Your task to perform on an android device: see creations saved in the google photos Image 0: 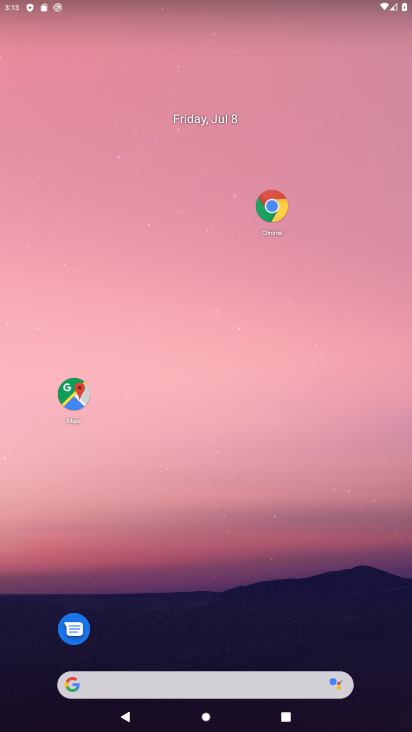
Step 0: click (312, 182)
Your task to perform on an android device: see creations saved in the google photos Image 1: 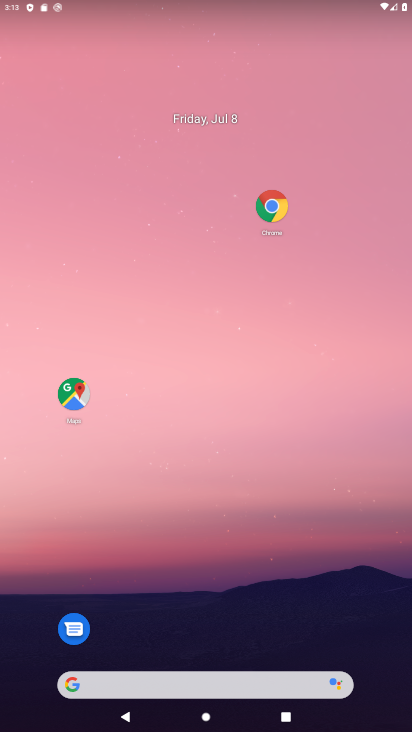
Step 1: drag from (224, 653) to (330, 126)
Your task to perform on an android device: see creations saved in the google photos Image 2: 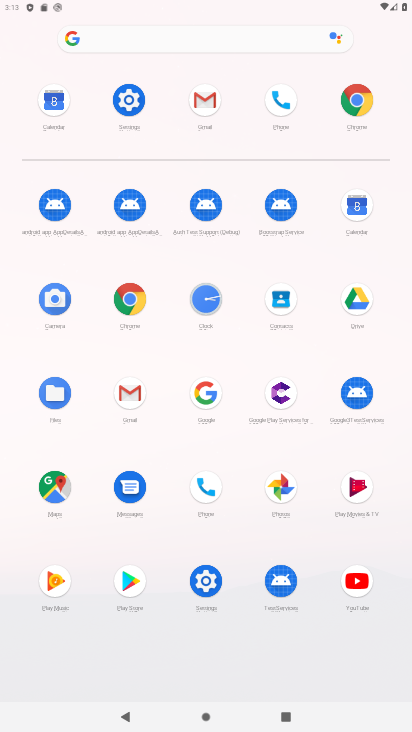
Step 2: drag from (246, 548) to (263, 10)
Your task to perform on an android device: see creations saved in the google photos Image 3: 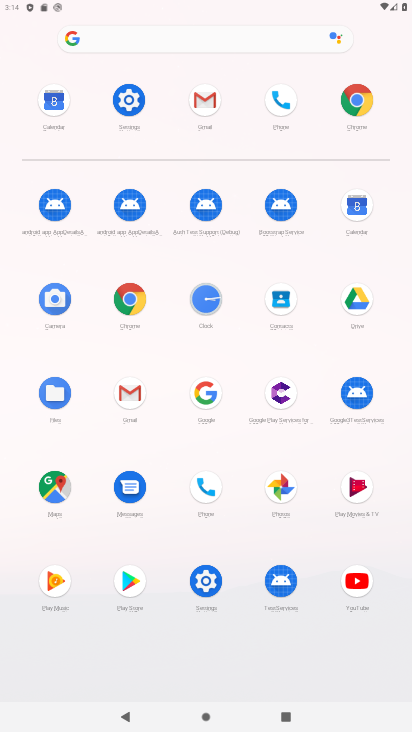
Step 3: click (273, 473)
Your task to perform on an android device: see creations saved in the google photos Image 4: 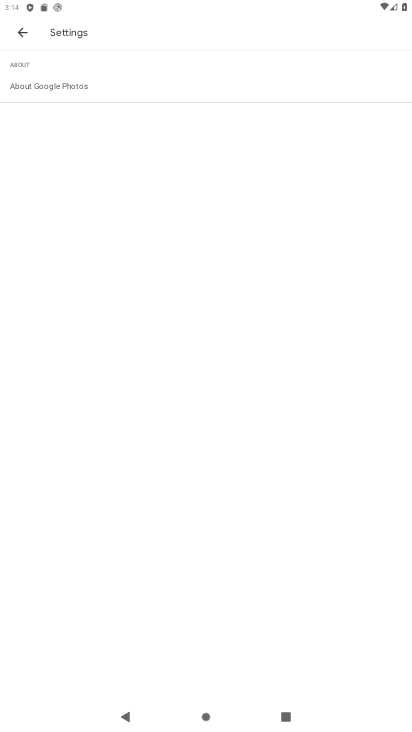
Step 4: click (23, 25)
Your task to perform on an android device: see creations saved in the google photos Image 5: 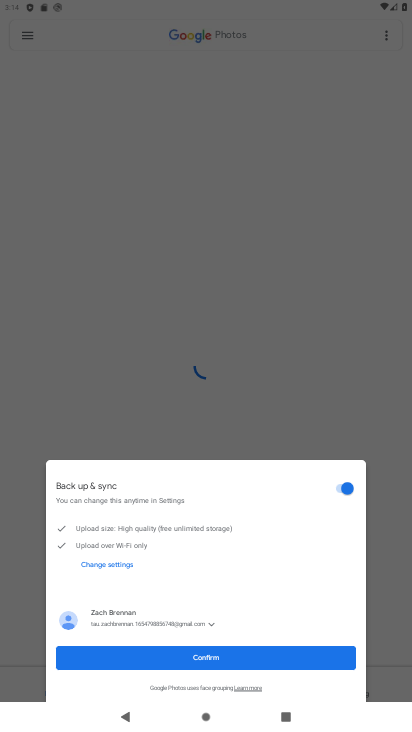
Step 5: click (177, 661)
Your task to perform on an android device: see creations saved in the google photos Image 6: 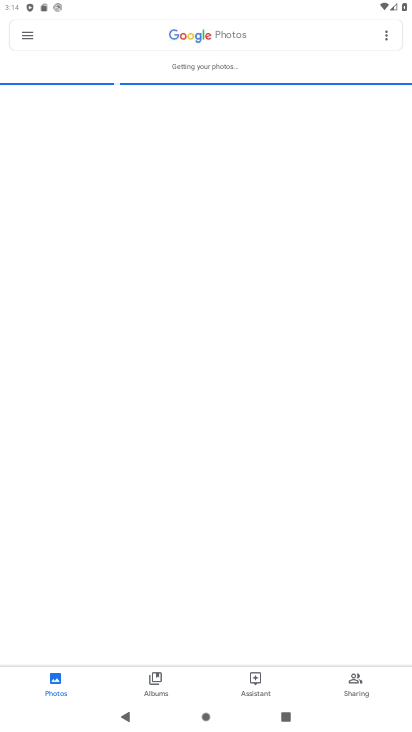
Step 6: click (144, 681)
Your task to perform on an android device: see creations saved in the google photos Image 7: 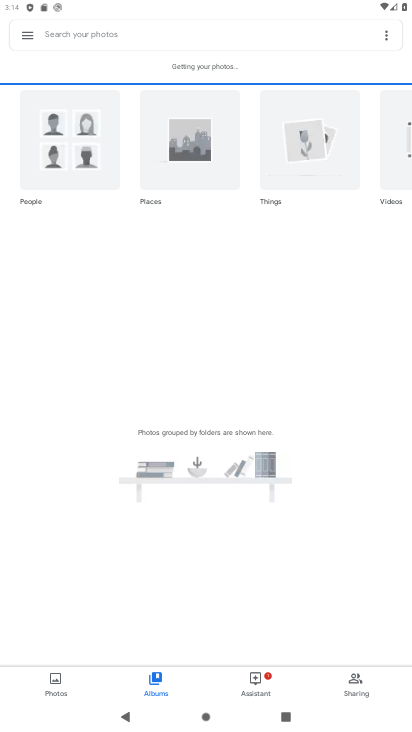
Step 7: click (113, 19)
Your task to perform on an android device: see creations saved in the google photos Image 8: 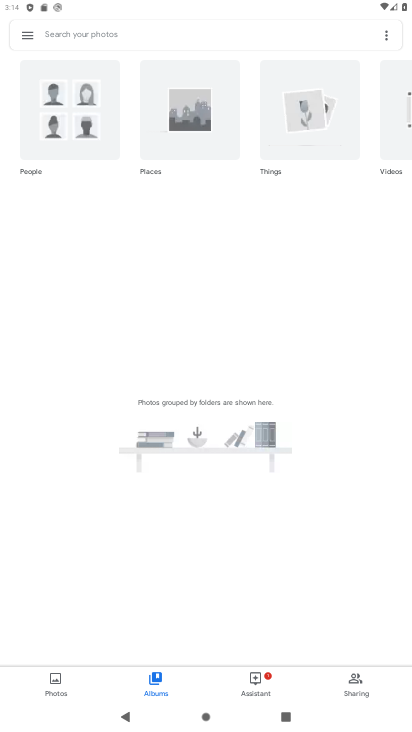
Step 8: click (82, 39)
Your task to perform on an android device: see creations saved in the google photos Image 9: 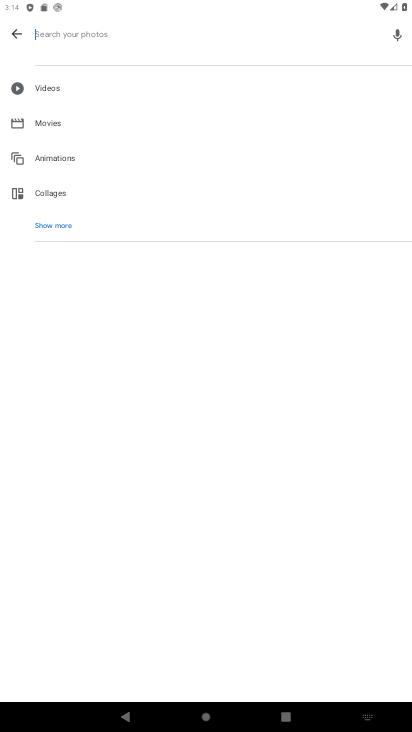
Step 9: click (41, 230)
Your task to perform on an android device: see creations saved in the google photos Image 10: 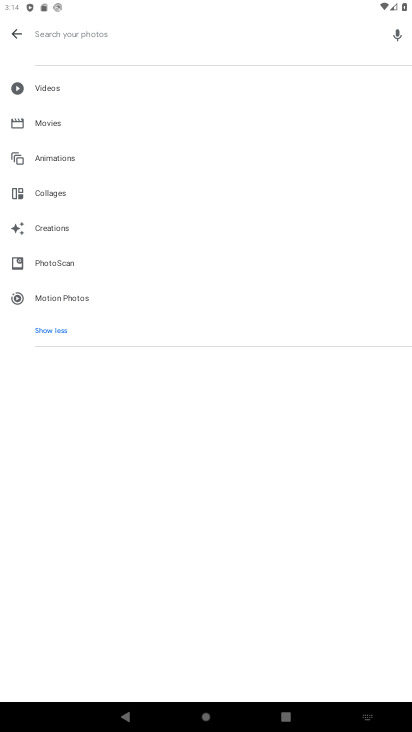
Step 10: click (60, 232)
Your task to perform on an android device: see creations saved in the google photos Image 11: 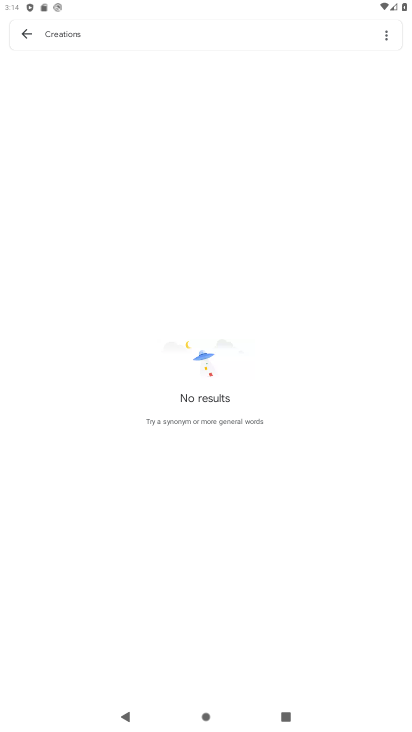
Step 11: drag from (115, 589) to (175, 202)
Your task to perform on an android device: see creations saved in the google photos Image 12: 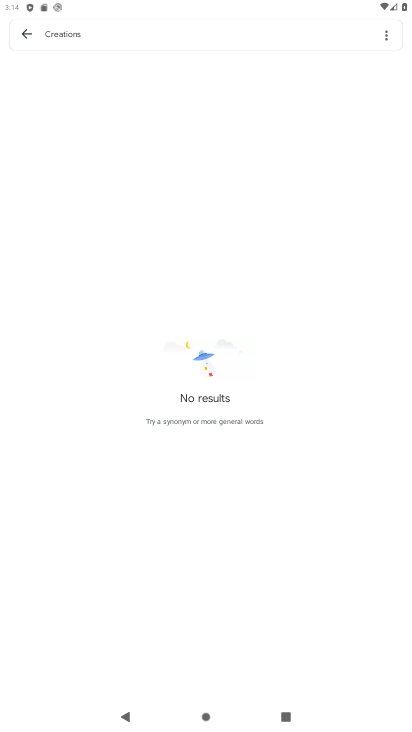
Step 12: drag from (218, 484) to (327, 252)
Your task to perform on an android device: see creations saved in the google photos Image 13: 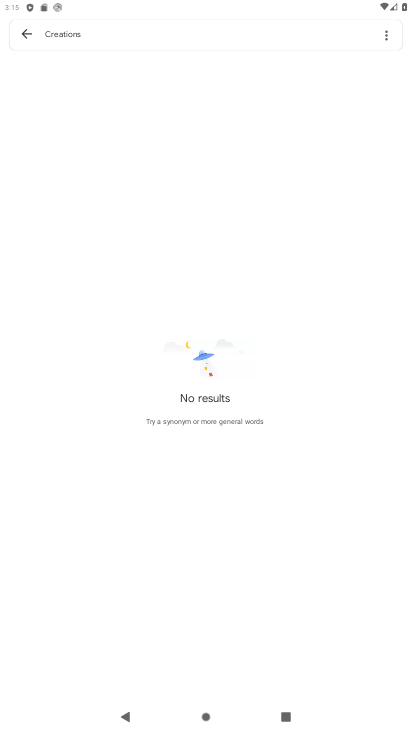
Step 13: drag from (290, 532) to (290, 378)
Your task to perform on an android device: see creations saved in the google photos Image 14: 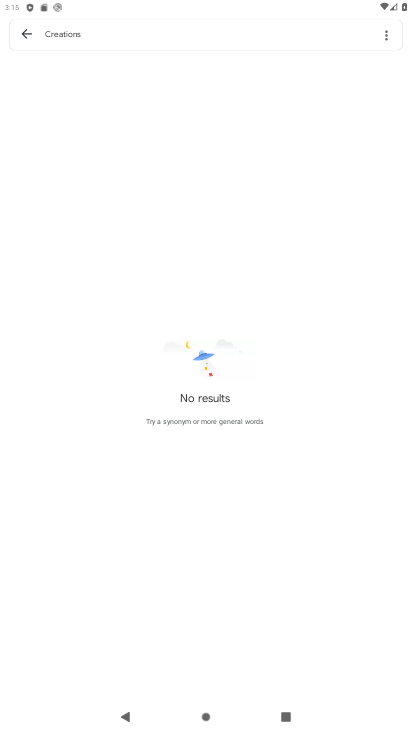
Step 14: drag from (97, 375) to (174, 79)
Your task to perform on an android device: see creations saved in the google photos Image 15: 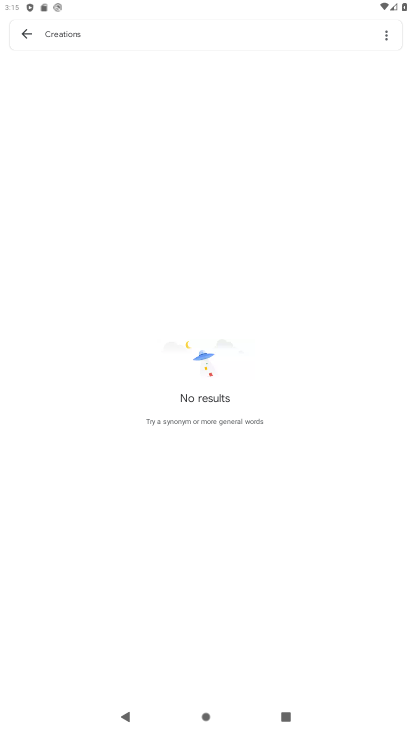
Step 15: drag from (270, 633) to (253, 418)
Your task to perform on an android device: see creations saved in the google photos Image 16: 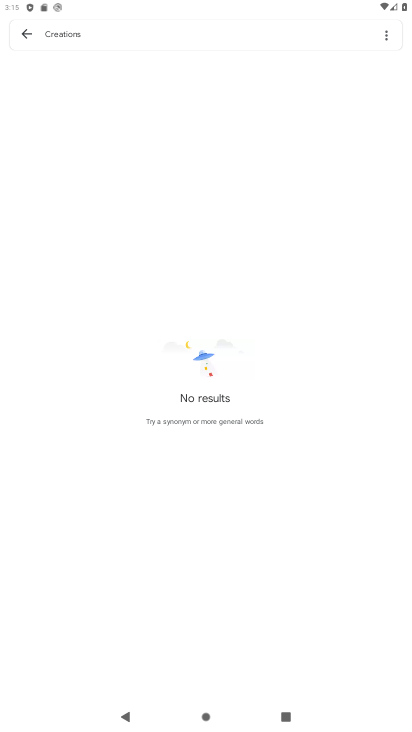
Step 16: drag from (189, 460) to (243, 292)
Your task to perform on an android device: see creations saved in the google photos Image 17: 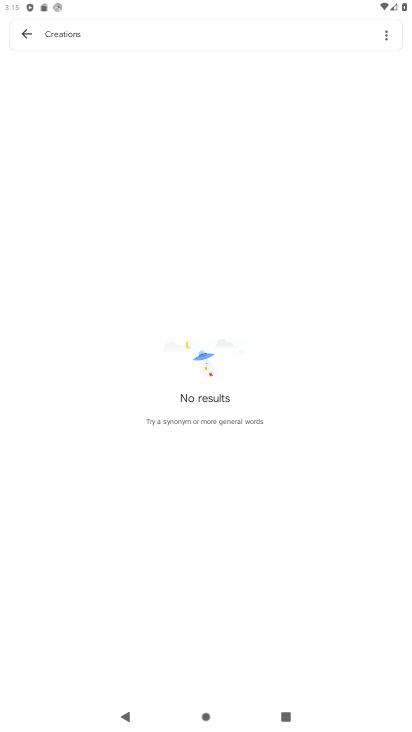
Step 17: drag from (112, 591) to (308, 240)
Your task to perform on an android device: see creations saved in the google photos Image 18: 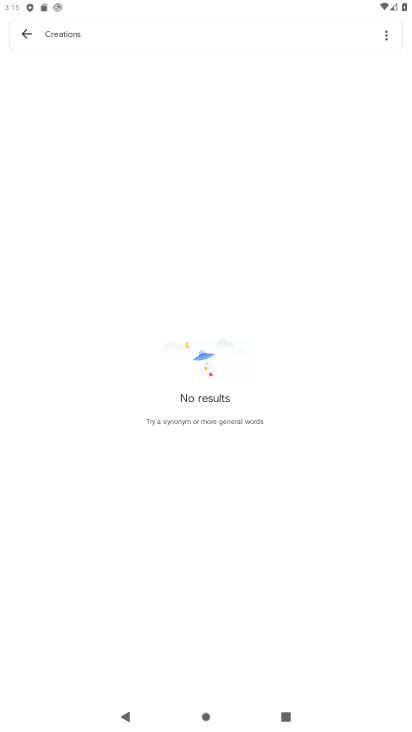
Step 18: drag from (348, 493) to (347, 377)
Your task to perform on an android device: see creations saved in the google photos Image 19: 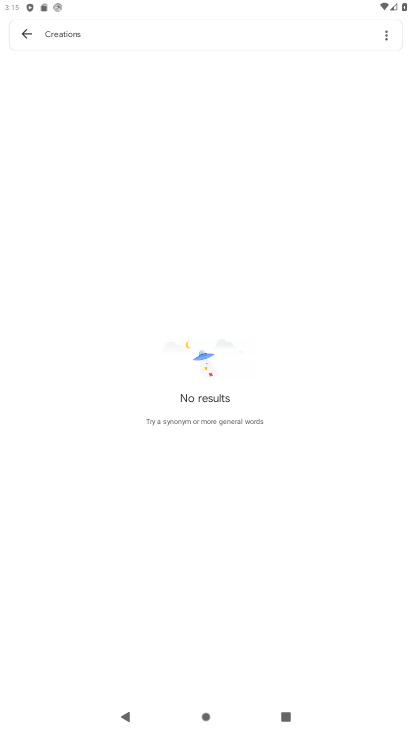
Step 19: click (204, 289)
Your task to perform on an android device: see creations saved in the google photos Image 20: 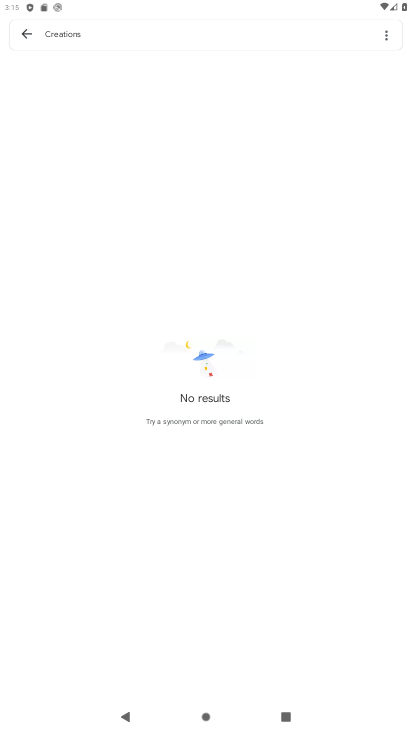
Step 20: click (223, 309)
Your task to perform on an android device: see creations saved in the google photos Image 21: 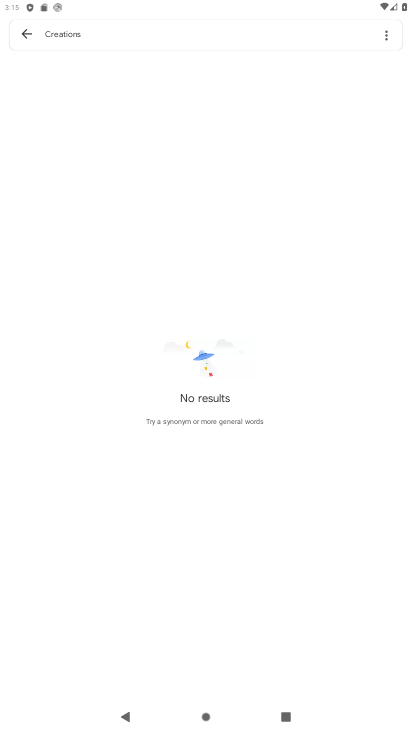
Step 21: click (223, 309)
Your task to perform on an android device: see creations saved in the google photos Image 22: 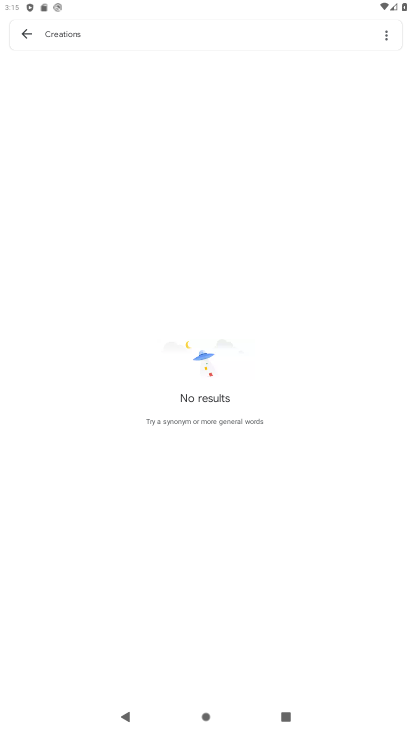
Step 22: drag from (195, 532) to (205, 459)
Your task to perform on an android device: see creations saved in the google photos Image 23: 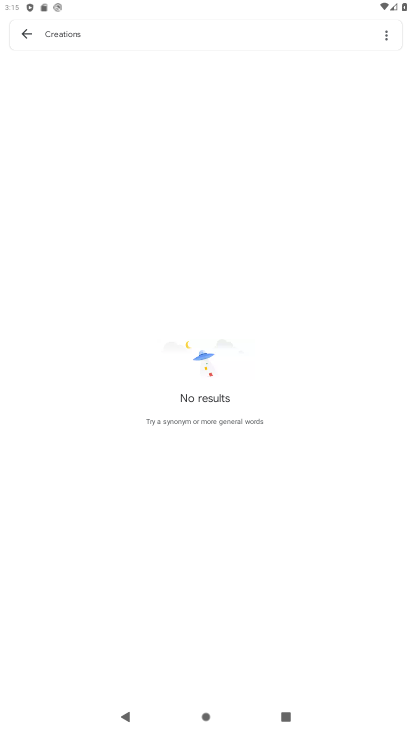
Step 23: drag from (189, 400) to (220, 439)
Your task to perform on an android device: see creations saved in the google photos Image 24: 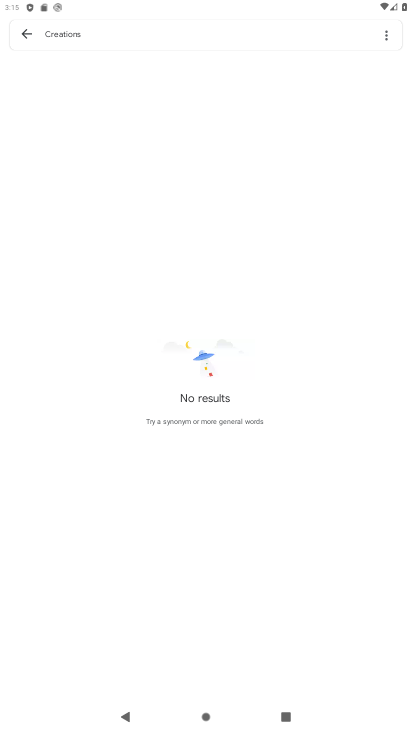
Step 24: click (270, 510)
Your task to perform on an android device: see creations saved in the google photos Image 25: 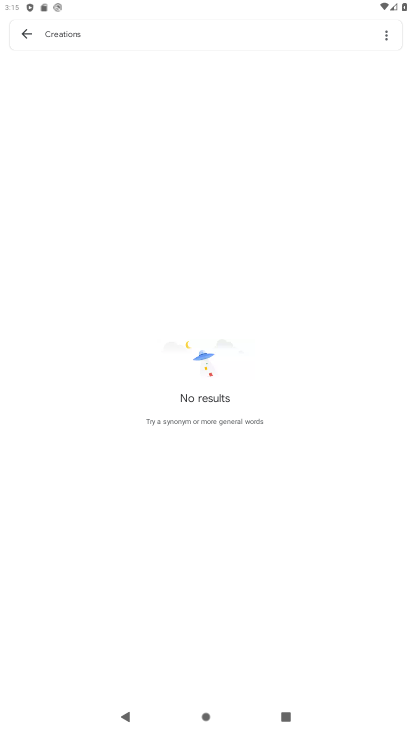
Step 25: click (210, 368)
Your task to perform on an android device: see creations saved in the google photos Image 26: 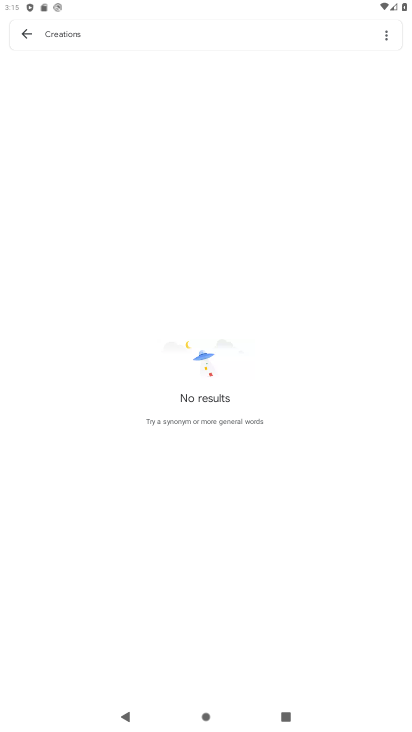
Step 26: click (191, 356)
Your task to perform on an android device: see creations saved in the google photos Image 27: 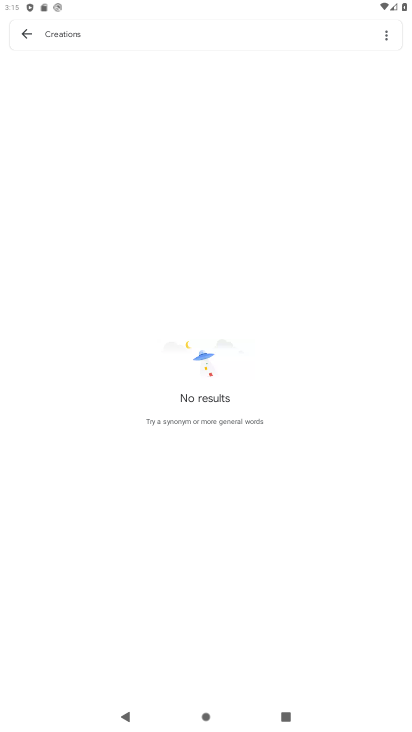
Step 27: click (199, 211)
Your task to perform on an android device: see creations saved in the google photos Image 28: 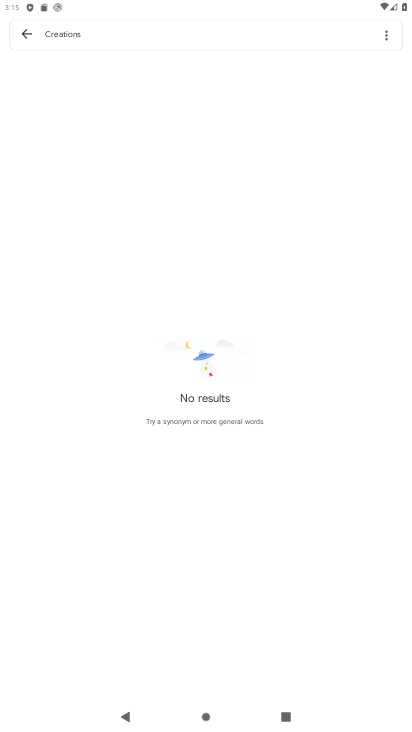
Step 28: task complete